Your task to perform on an android device: Show me recent news Image 0: 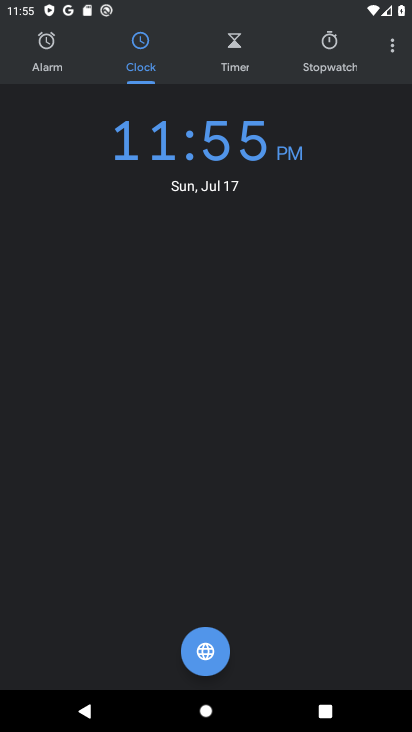
Step 0: press home button
Your task to perform on an android device: Show me recent news Image 1: 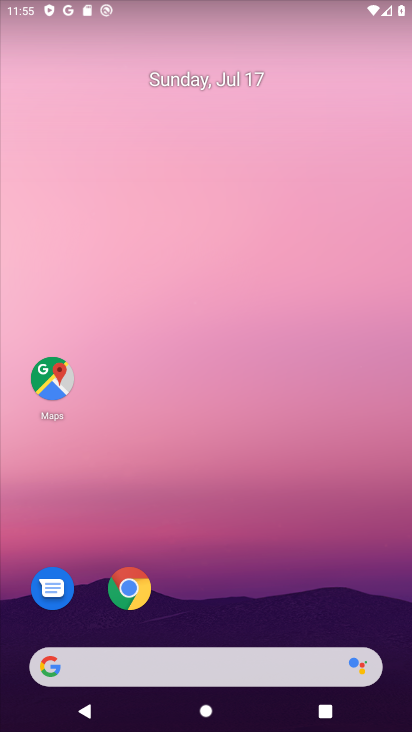
Step 1: click (199, 662)
Your task to perform on an android device: Show me recent news Image 2: 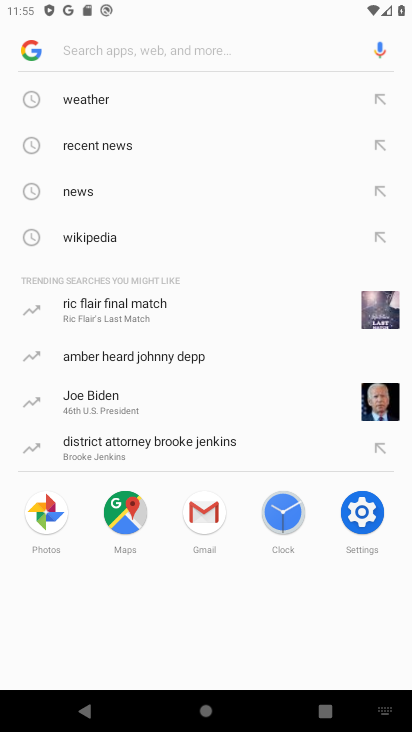
Step 2: click (134, 53)
Your task to perform on an android device: Show me recent news Image 3: 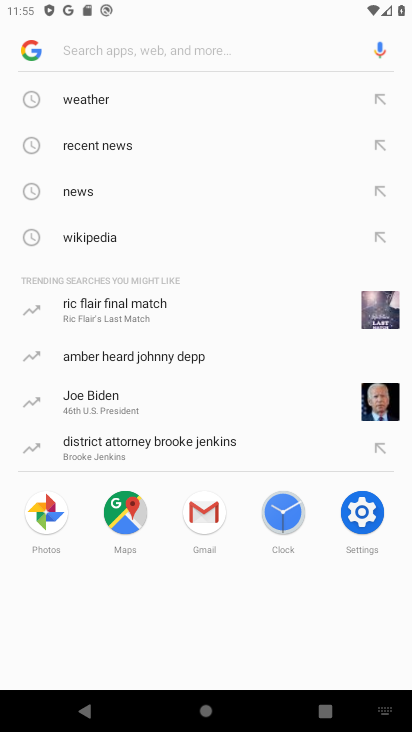
Step 3: type "recent news"
Your task to perform on an android device: Show me recent news Image 4: 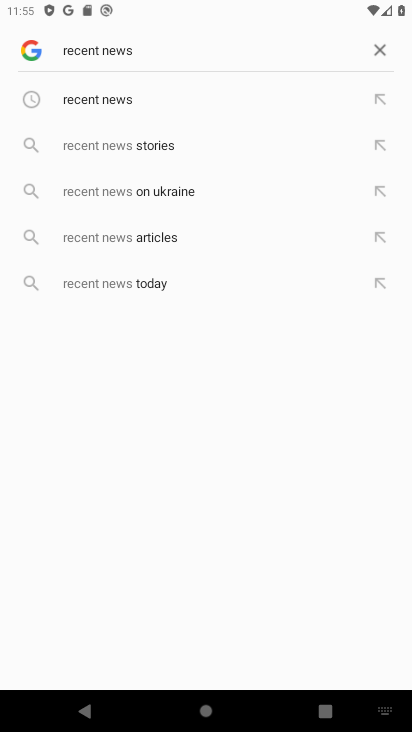
Step 4: click (207, 96)
Your task to perform on an android device: Show me recent news Image 5: 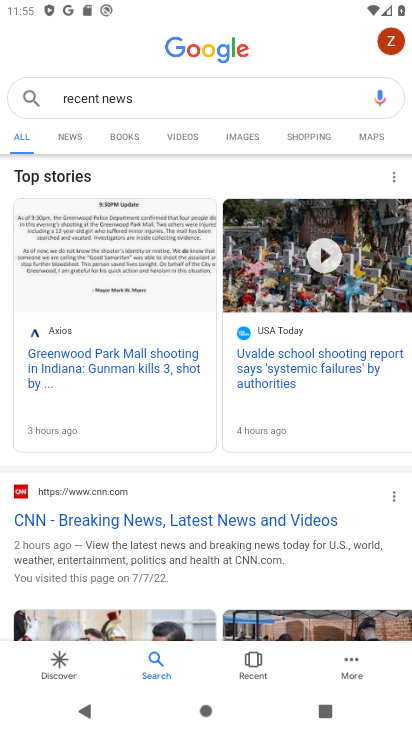
Step 5: click (73, 136)
Your task to perform on an android device: Show me recent news Image 6: 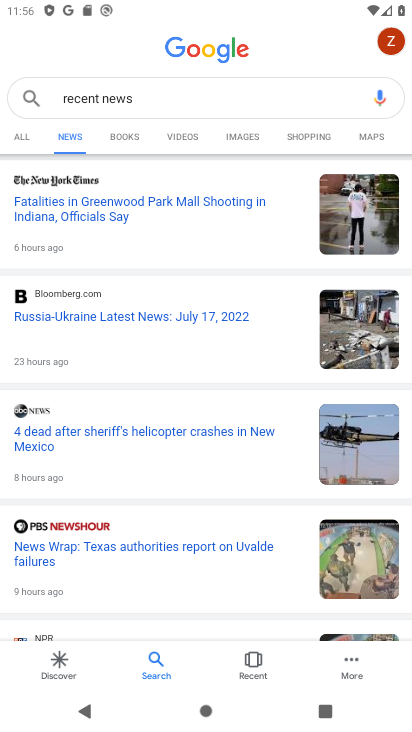
Step 6: task complete